Your task to perform on an android device: Find coffee shops on Maps Image 0: 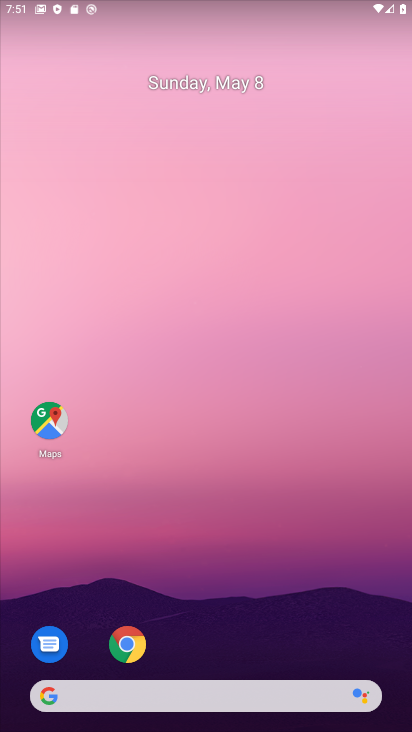
Step 0: drag from (192, 637) to (217, 41)
Your task to perform on an android device: Find coffee shops on Maps Image 1: 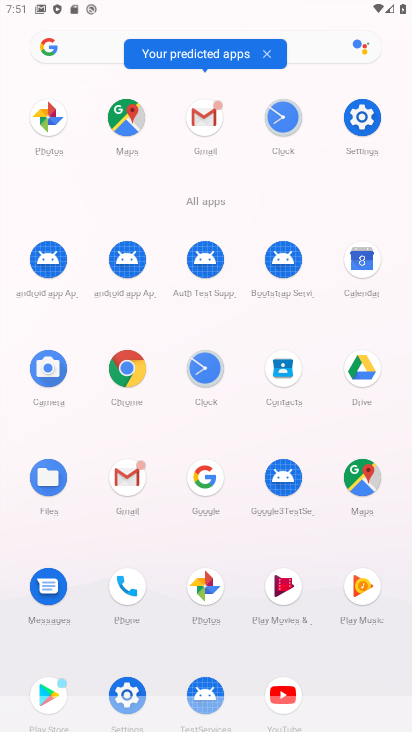
Step 1: click (364, 483)
Your task to perform on an android device: Find coffee shops on Maps Image 2: 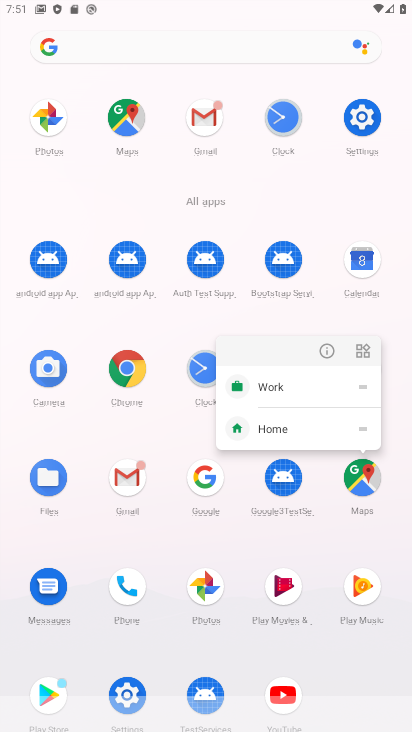
Step 2: click (322, 339)
Your task to perform on an android device: Find coffee shops on Maps Image 3: 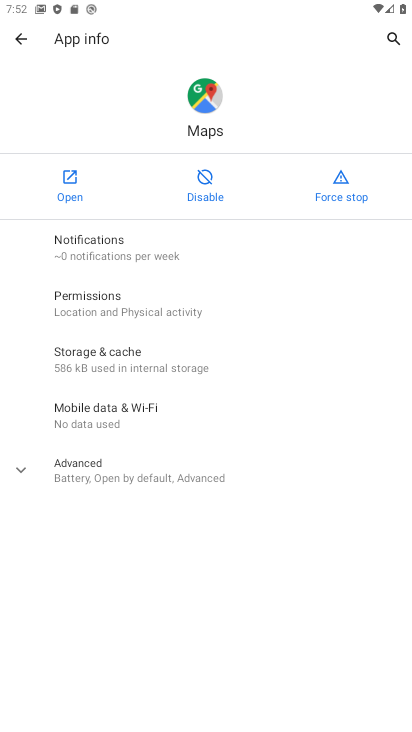
Step 3: click (59, 168)
Your task to perform on an android device: Find coffee shops on Maps Image 4: 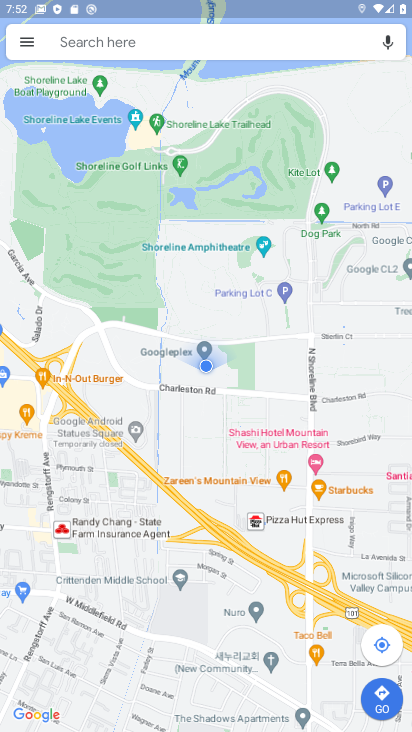
Step 4: drag from (184, 601) to (268, 198)
Your task to perform on an android device: Find coffee shops on Maps Image 5: 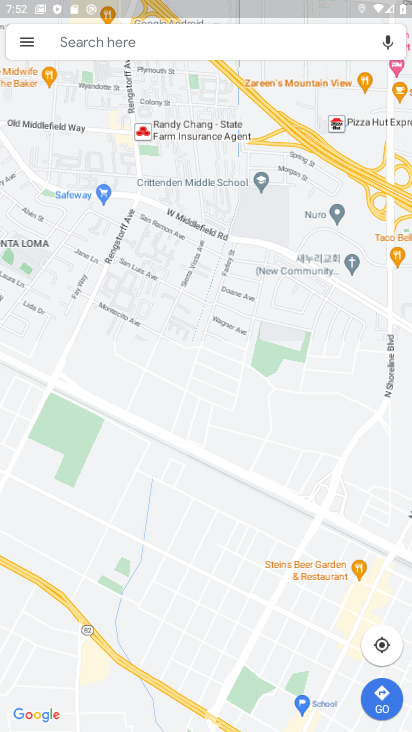
Step 5: drag from (181, 465) to (224, 233)
Your task to perform on an android device: Find coffee shops on Maps Image 6: 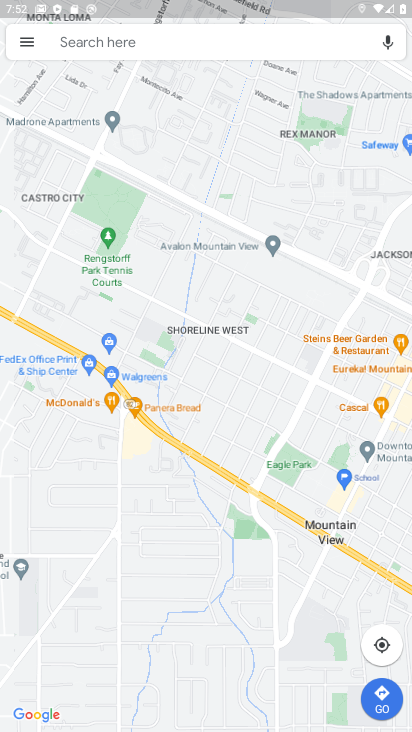
Step 6: drag from (228, 213) to (195, 701)
Your task to perform on an android device: Find coffee shops on Maps Image 7: 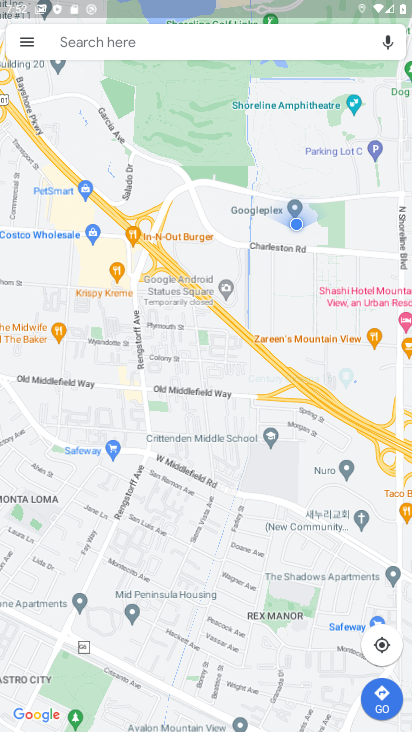
Step 7: drag from (251, 490) to (266, 548)
Your task to perform on an android device: Find coffee shops on Maps Image 8: 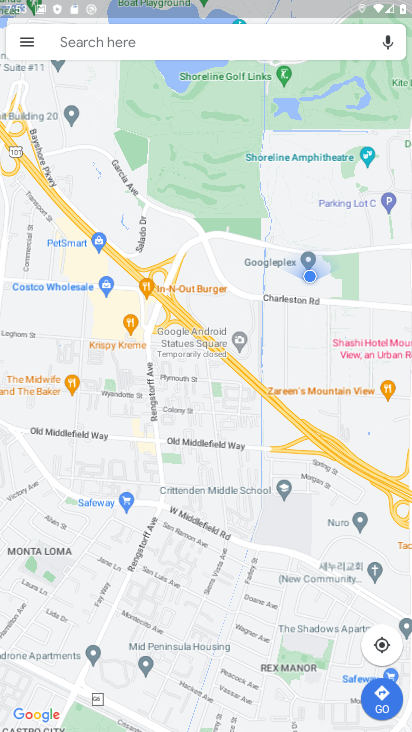
Step 8: drag from (163, 481) to (269, 142)
Your task to perform on an android device: Find coffee shops on Maps Image 9: 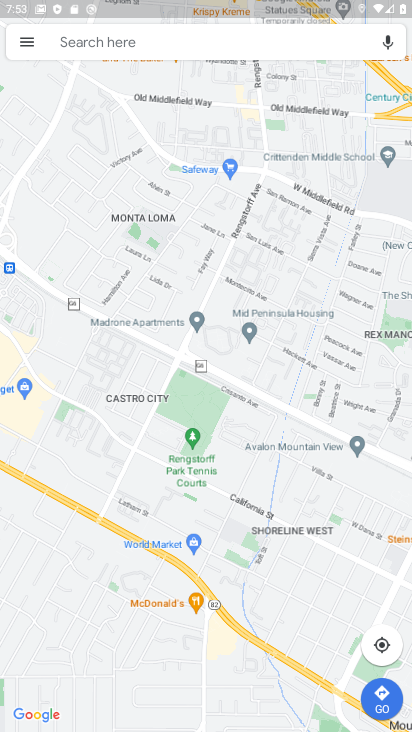
Step 9: click (156, 42)
Your task to perform on an android device: Find coffee shops on Maps Image 10: 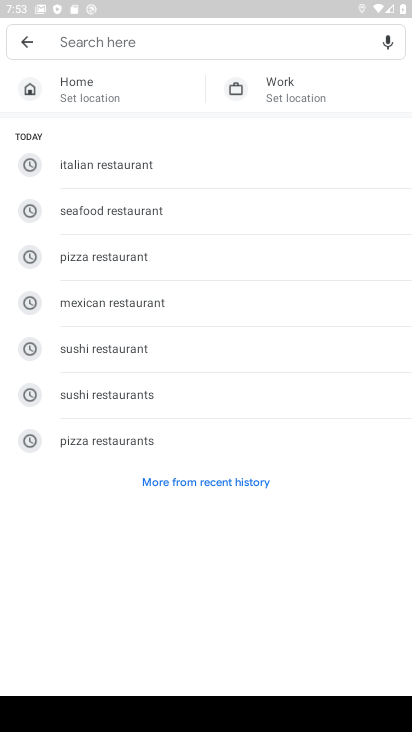
Step 10: type "coffee shop"
Your task to perform on an android device: Find coffee shops on Maps Image 11: 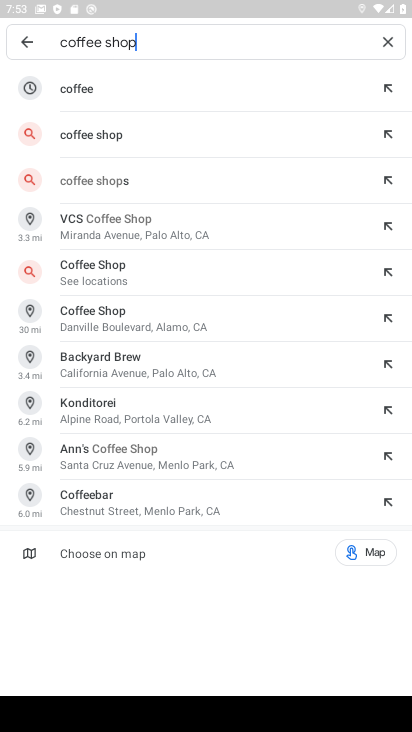
Step 11: click (110, 119)
Your task to perform on an android device: Find coffee shops on Maps Image 12: 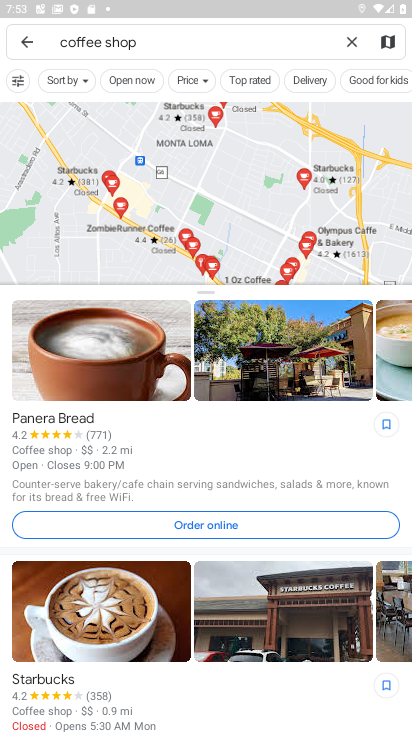
Step 12: task complete